Your task to perform on an android device: Go to Wikipedia Image 0: 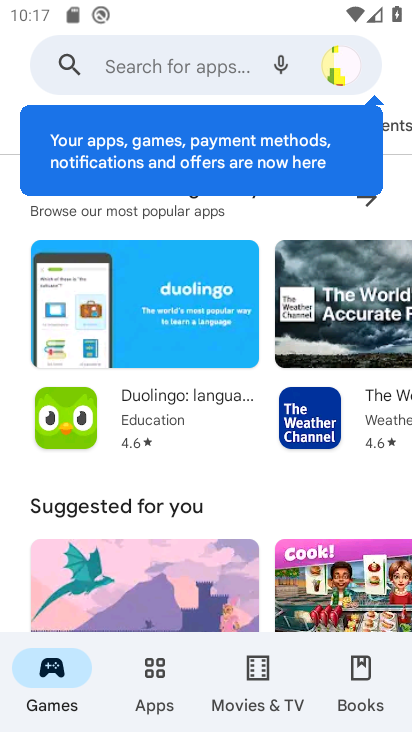
Step 0: press home button
Your task to perform on an android device: Go to Wikipedia Image 1: 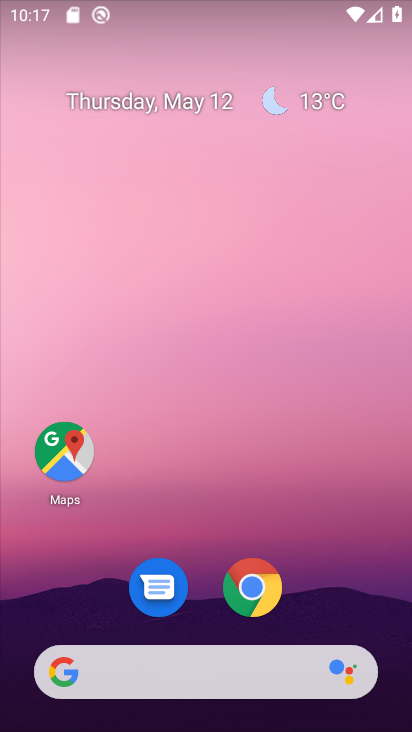
Step 1: click (241, 604)
Your task to perform on an android device: Go to Wikipedia Image 2: 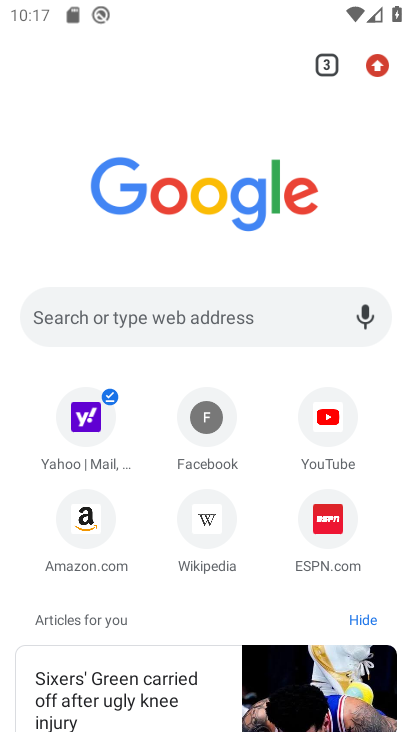
Step 2: click (206, 526)
Your task to perform on an android device: Go to Wikipedia Image 3: 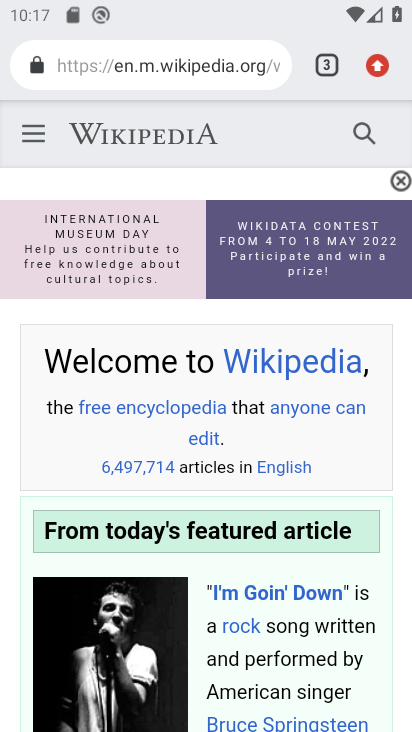
Step 3: task complete